Your task to perform on an android device: What is the recent news? Image 0: 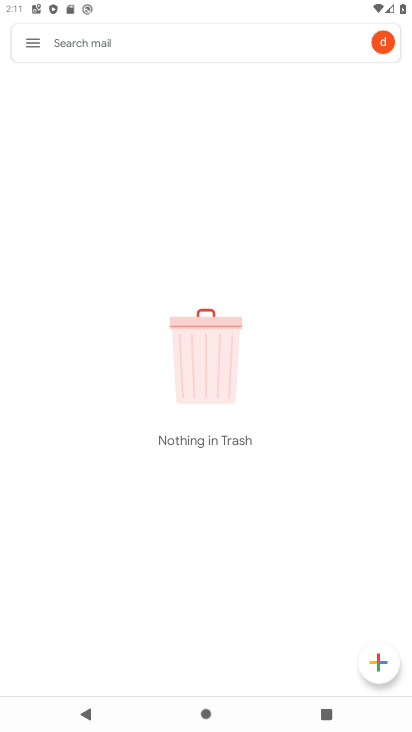
Step 0: press home button
Your task to perform on an android device: What is the recent news? Image 1: 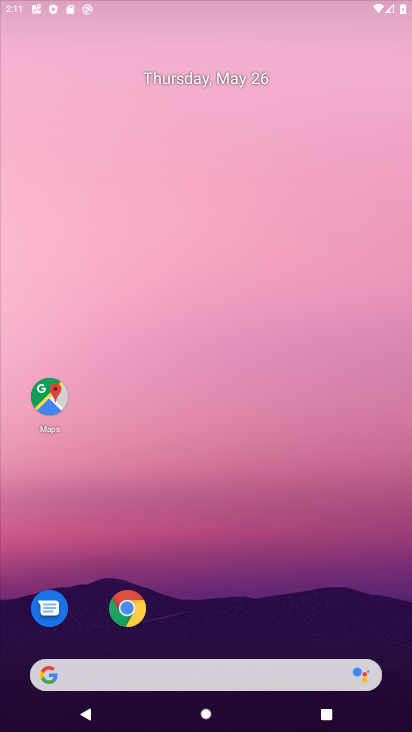
Step 1: drag from (288, 606) to (391, 53)
Your task to perform on an android device: What is the recent news? Image 2: 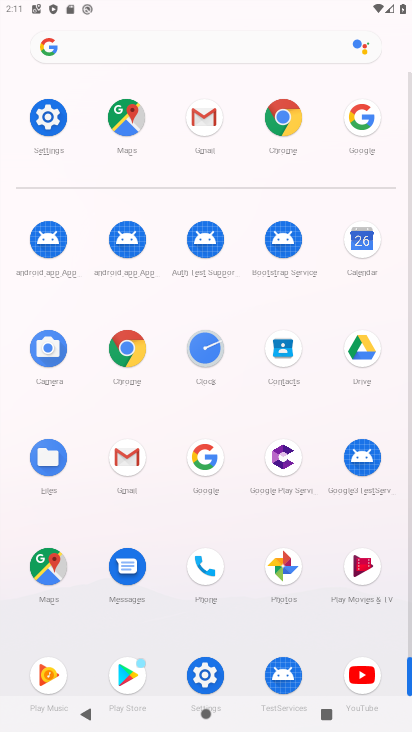
Step 2: click (271, 117)
Your task to perform on an android device: What is the recent news? Image 3: 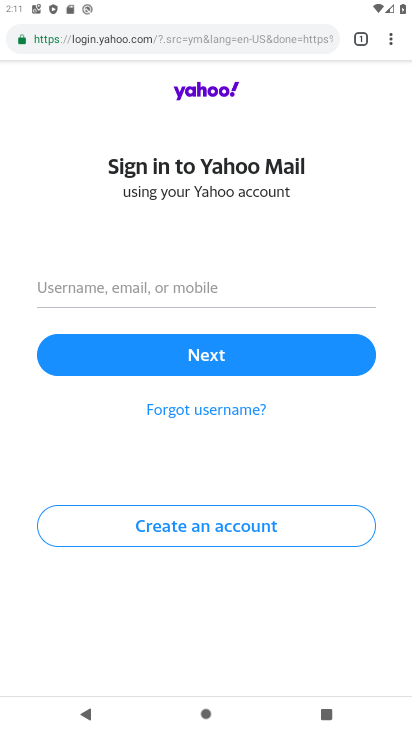
Step 3: task complete